Your task to perform on an android device: turn off smart reply in the gmail app Image 0: 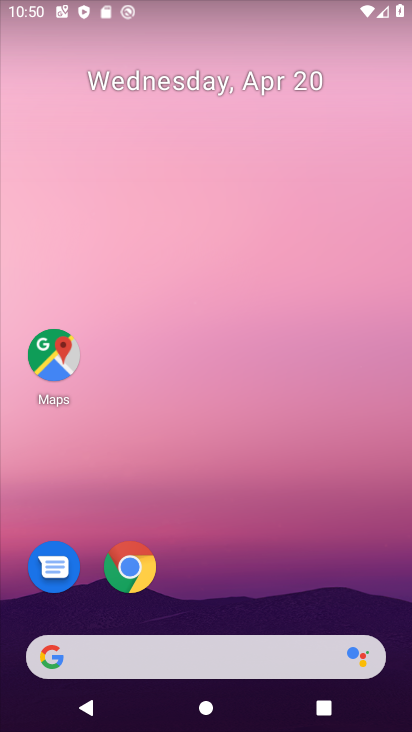
Step 0: drag from (264, 567) to (263, 10)
Your task to perform on an android device: turn off smart reply in the gmail app Image 1: 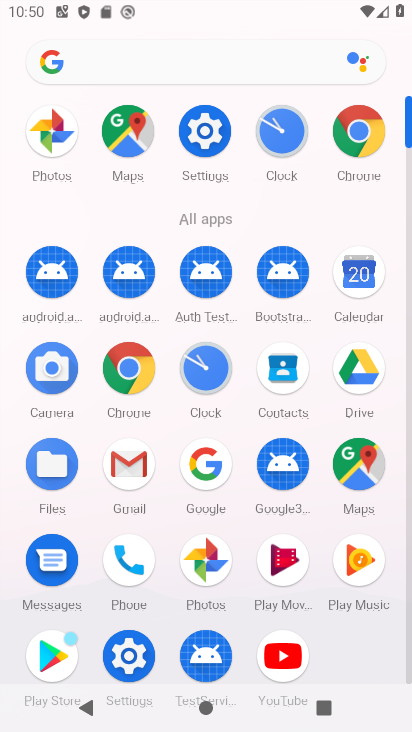
Step 1: click (131, 472)
Your task to perform on an android device: turn off smart reply in the gmail app Image 2: 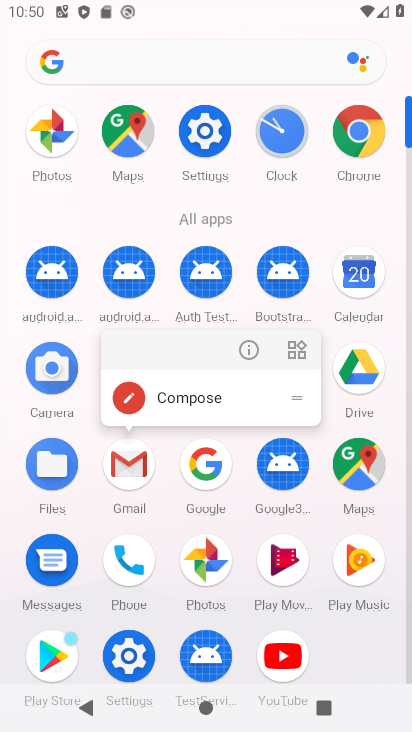
Step 2: click (112, 456)
Your task to perform on an android device: turn off smart reply in the gmail app Image 3: 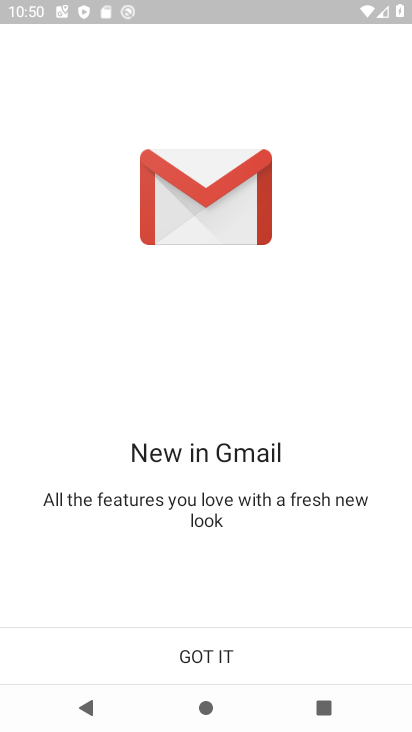
Step 3: click (202, 655)
Your task to perform on an android device: turn off smart reply in the gmail app Image 4: 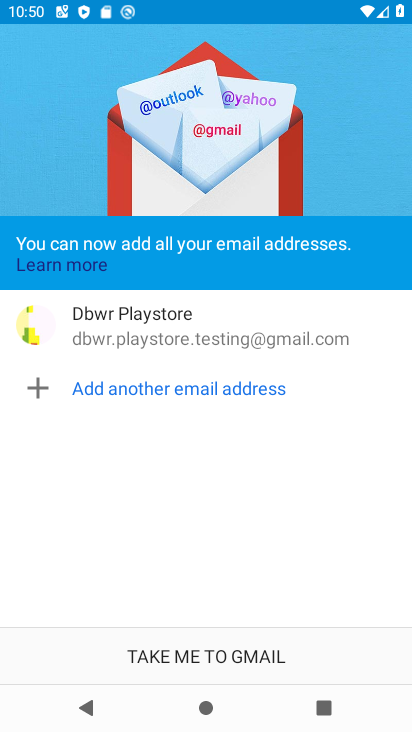
Step 4: click (247, 646)
Your task to perform on an android device: turn off smart reply in the gmail app Image 5: 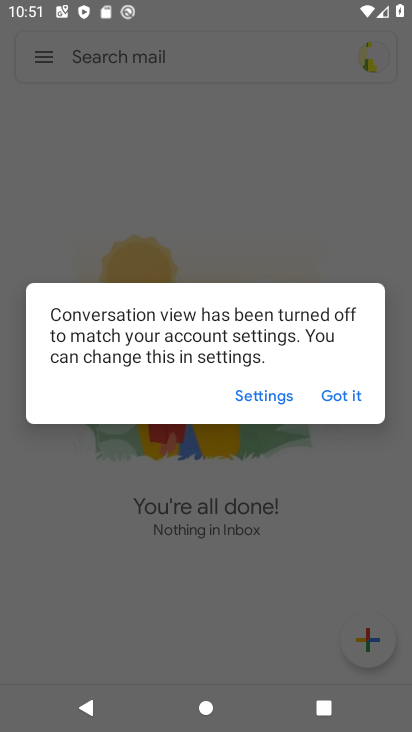
Step 5: click (337, 393)
Your task to perform on an android device: turn off smart reply in the gmail app Image 6: 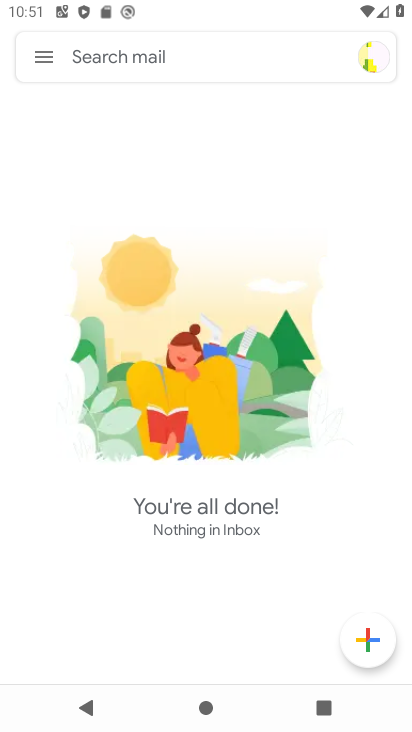
Step 6: click (36, 54)
Your task to perform on an android device: turn off smart reply in the gmail app Image 7: 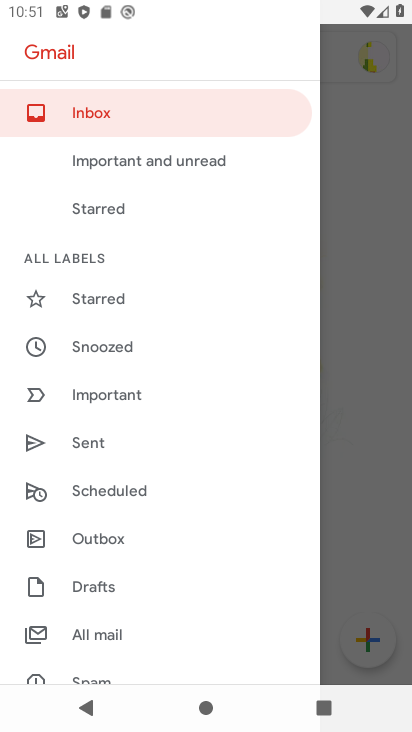
Step 7: drag from (146, 641) to (128, 515)
Your task to perform on an android device: turn off smart reply in the gmail app Image 8: 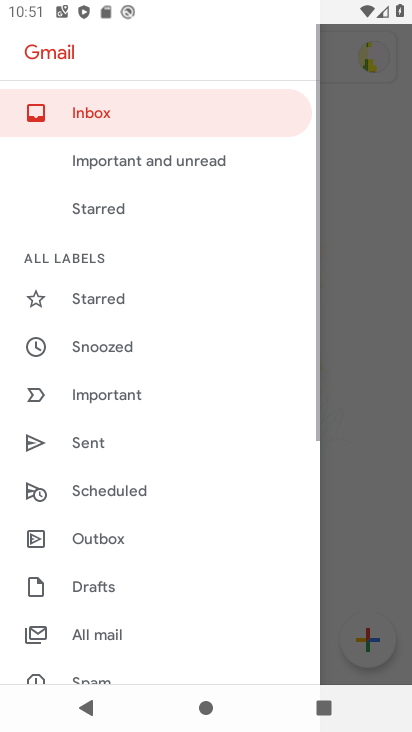
Step 8: drag from (137, 613) to (152, 506)
Your task to perform on an android device: turn off smart reply in the gmail app Image 9: 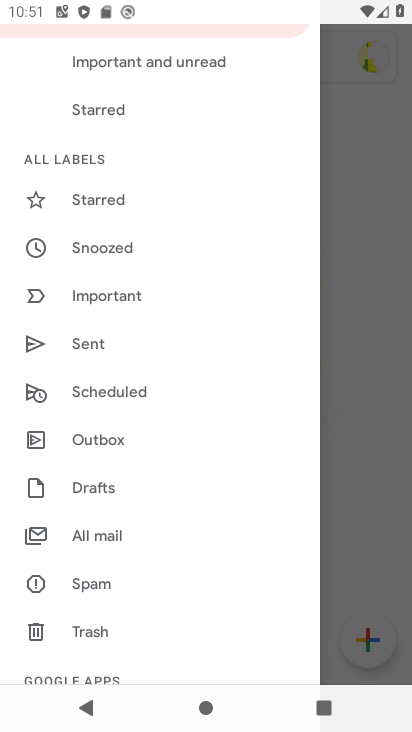
Step 9: drag from (140, 617) to (165, 491)
Your task to perform on an android device: turn off smart reply in the gmail app Image 10: 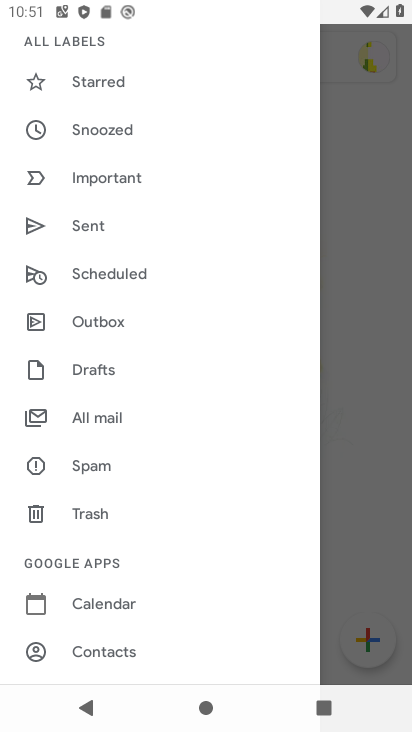
Step 10: drag from (148, 622) to (157, 519)
Your task to perform on an android device: turn off smart reply in the gmail app Image 11: 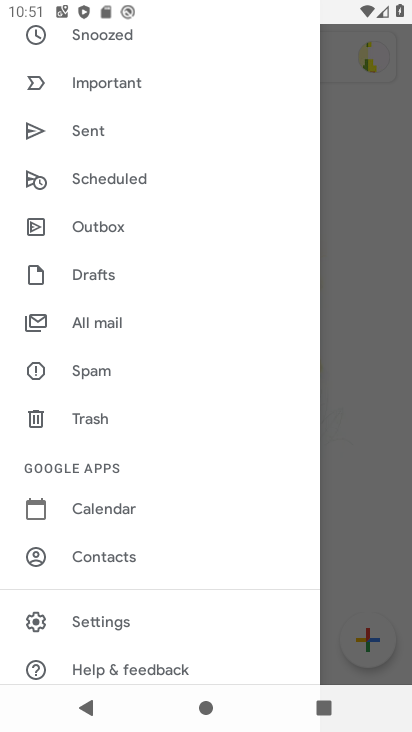
Step 11: click (145, 618)
Your task to perform on an android device: turn off smart reply in the gmail app Image 12: 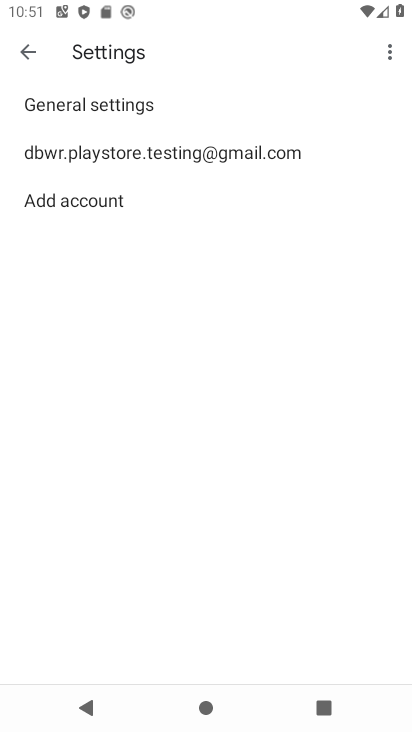
Step 12: click (213, 143)
Your task to perform on an android device: turn off smart reply in the gmail app Image 13: 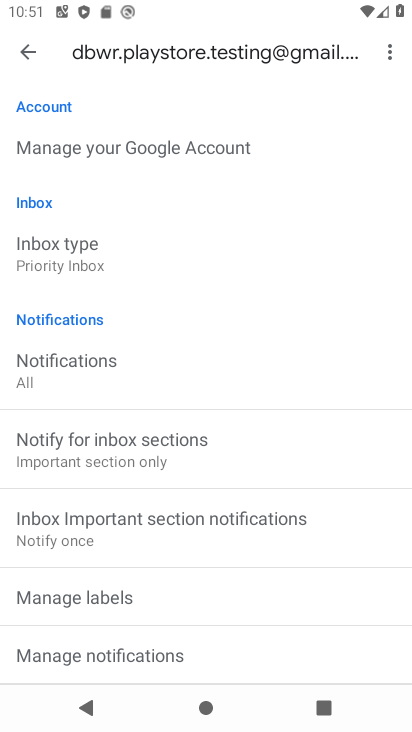
Step 13: drag from (172, 426) to (196, 335)
Your task to perform on an android device: turn off smart reply in the gmail app Image 14: 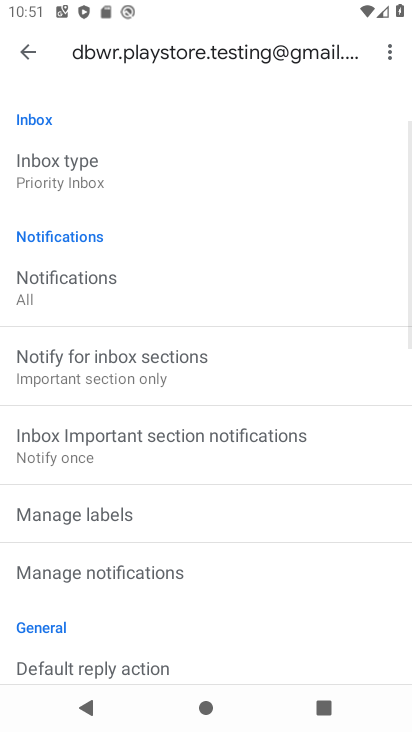
Step 14: drag from (218, 481) to (212, 385)
Your task to perform on an android device: turn off smart reply in the gmail app Image 15: 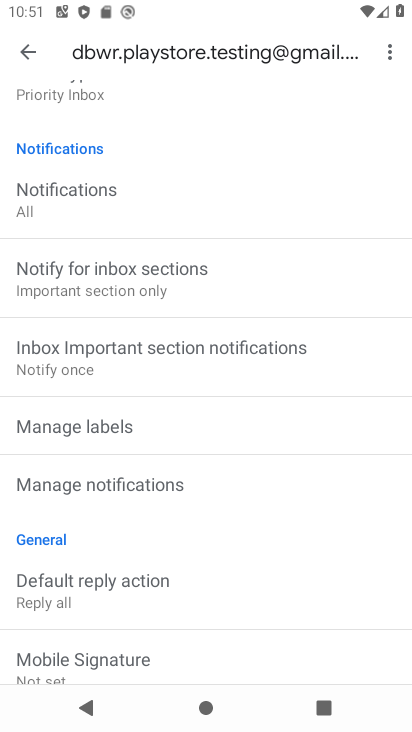
Step 15: drag from (228, 471) to (231, 387)
Your task to perform on an android device: turn off smart reply in the gmail app Image 16: 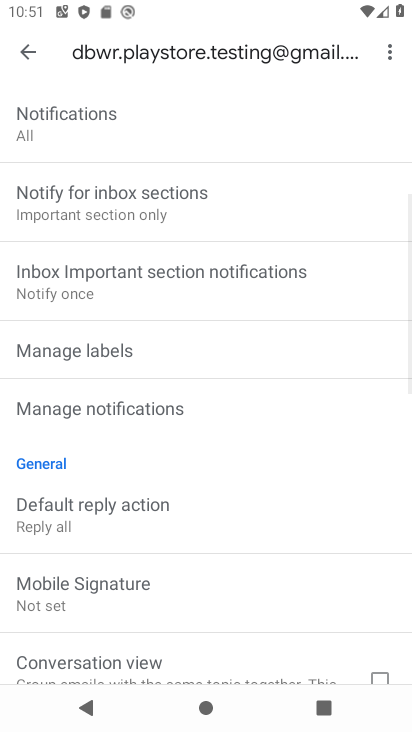
Step 16: drag from (175, 539) to (171, 453)
Your task to perform on an android device: turn off smart reply in the gmail app Image 17: 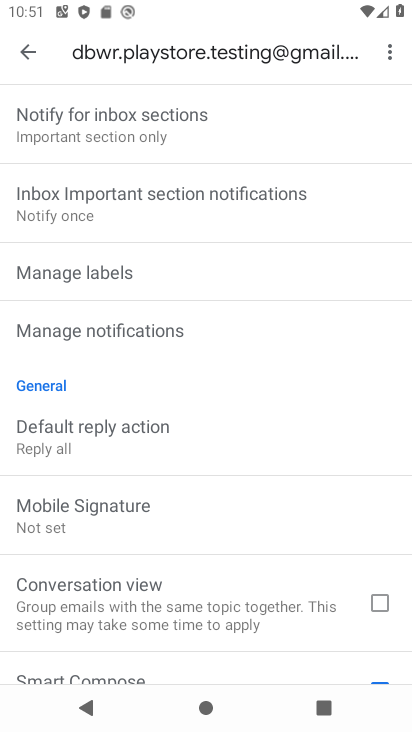
Step 17: drag from (174, 465) to (187, 390)
Your task to perform on an android device: turn off smart reply in the gmail app Image 18: 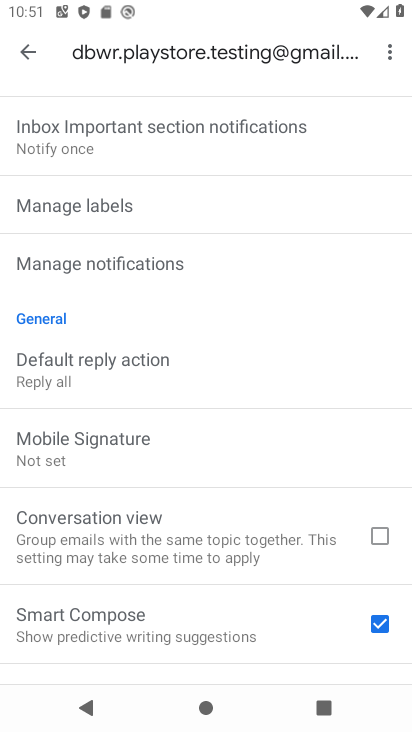
Step 18: drag from (216, 533) to (219, 468)
Your task to perform on an android device: turn off smart reply in the gmail app Image 19: 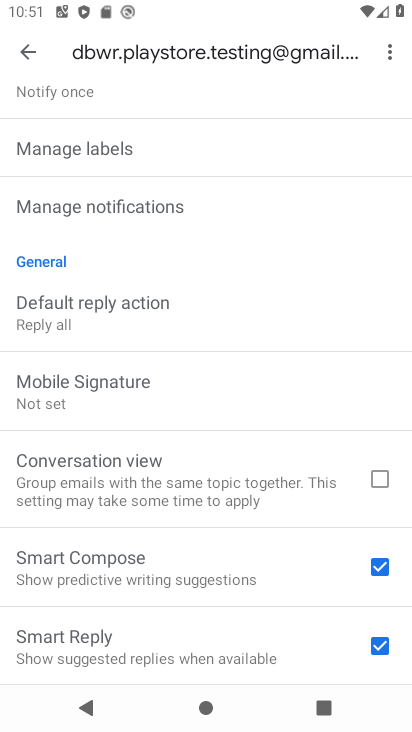
Step 19: drag from (224, 543) to (216, 460)
Your task to perform on an android device: turn off smart reply in the gmail app Image 20: 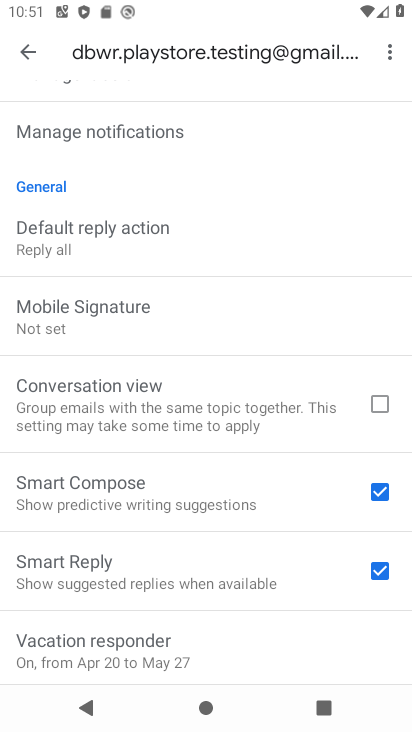
Step 20: drag from (238, 516) to (251, 452)
Your task to perform on an android device: turn off smart reply in the gmail app Image 21: 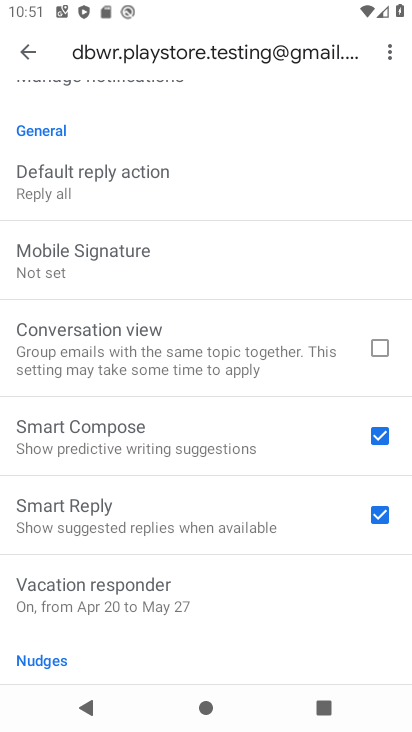
Step 21: drag from (239, 503) to (244, 419)
Your task to perform on an android device: turn off smart reply in the gmail app Image 22: 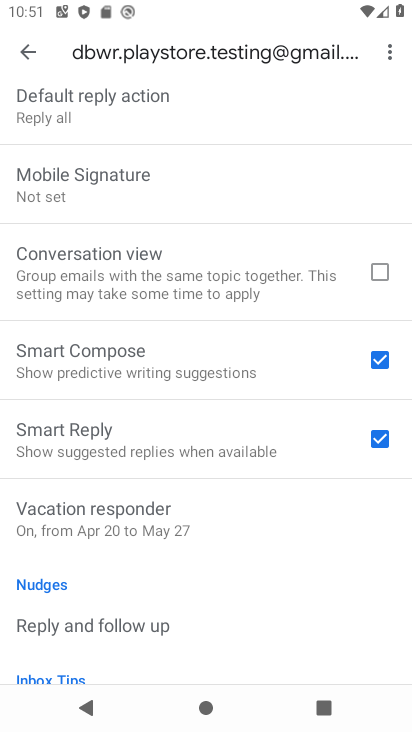
Step 22: click (367, 443)
Your task to perform on an android device: turn off smart reply in the gmail app Image 23: 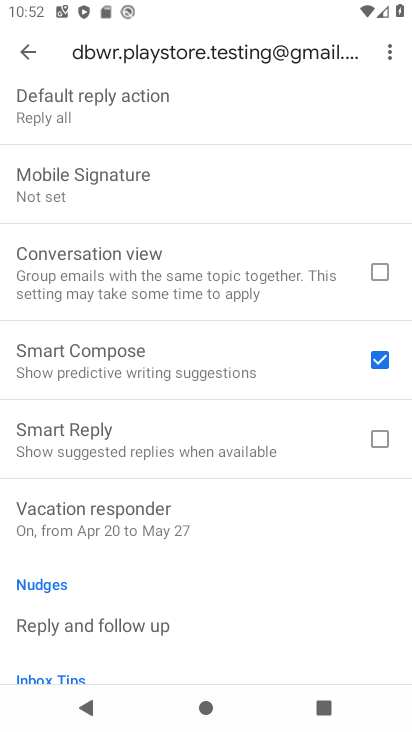
Step 23: task complete